Your task to perform on an android device: empty trash in google photos Image 0: 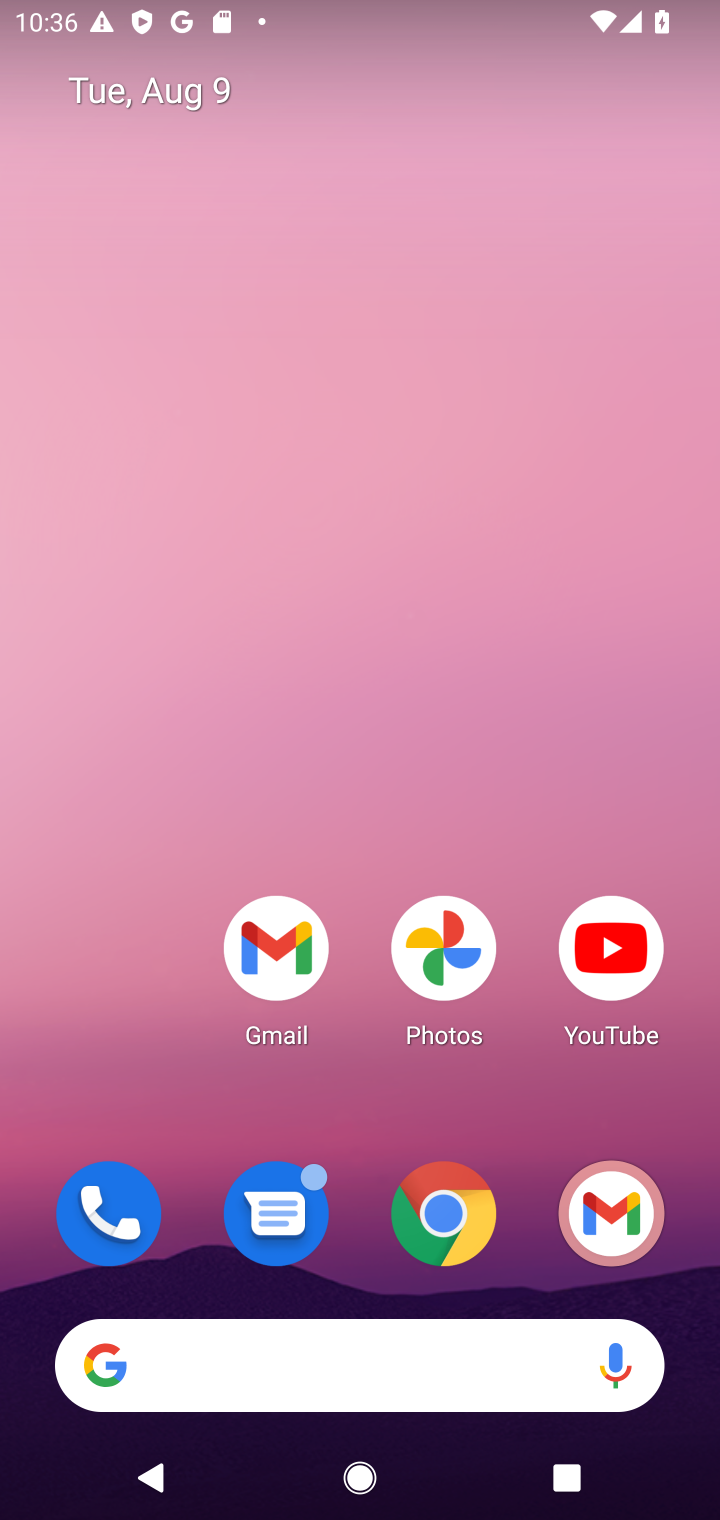
Step 0: drag from (422, 1264) to (502, 95)
Your task to perform on an android device: empty trash in google photos Image 1: 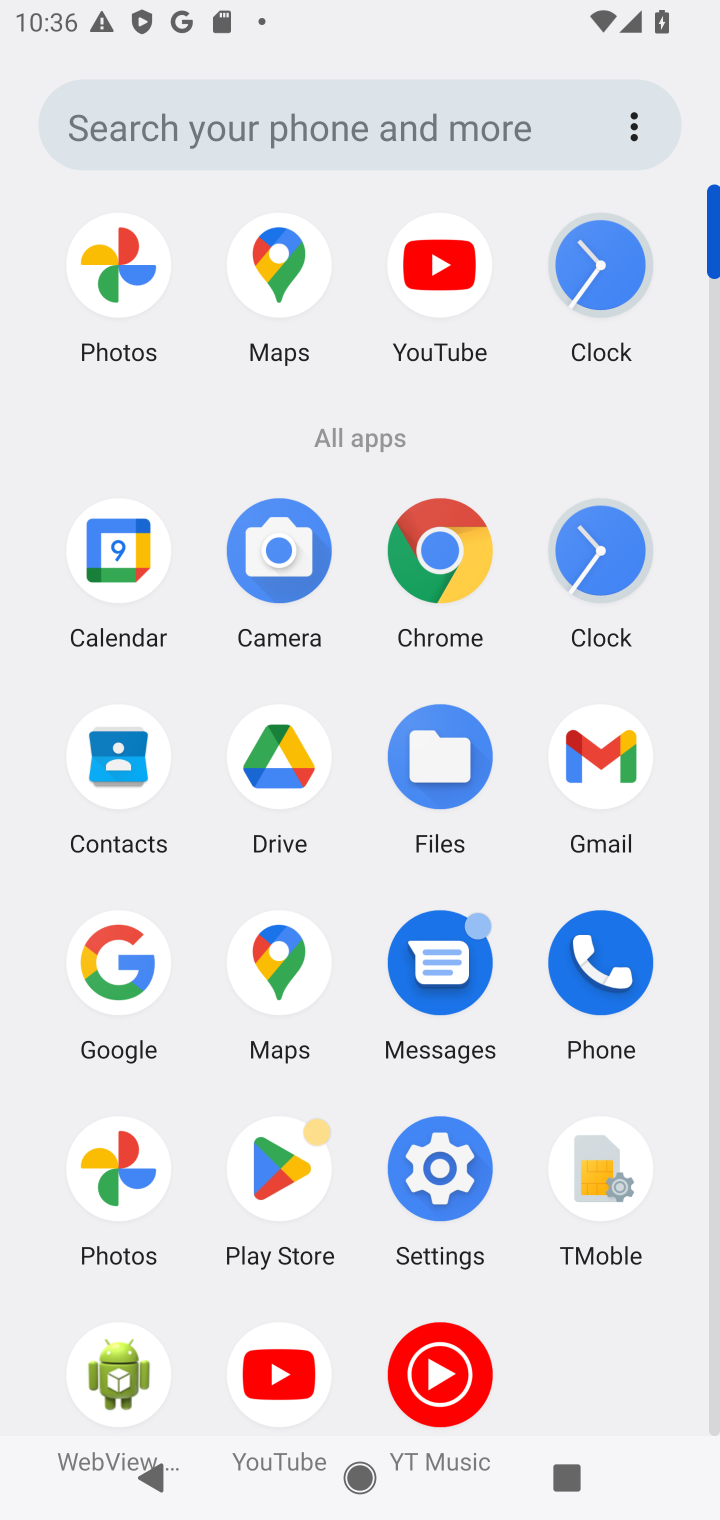
Step 1: click (138, 1190)
Your task to perform on an android device: empty trash in google photos Image 2: 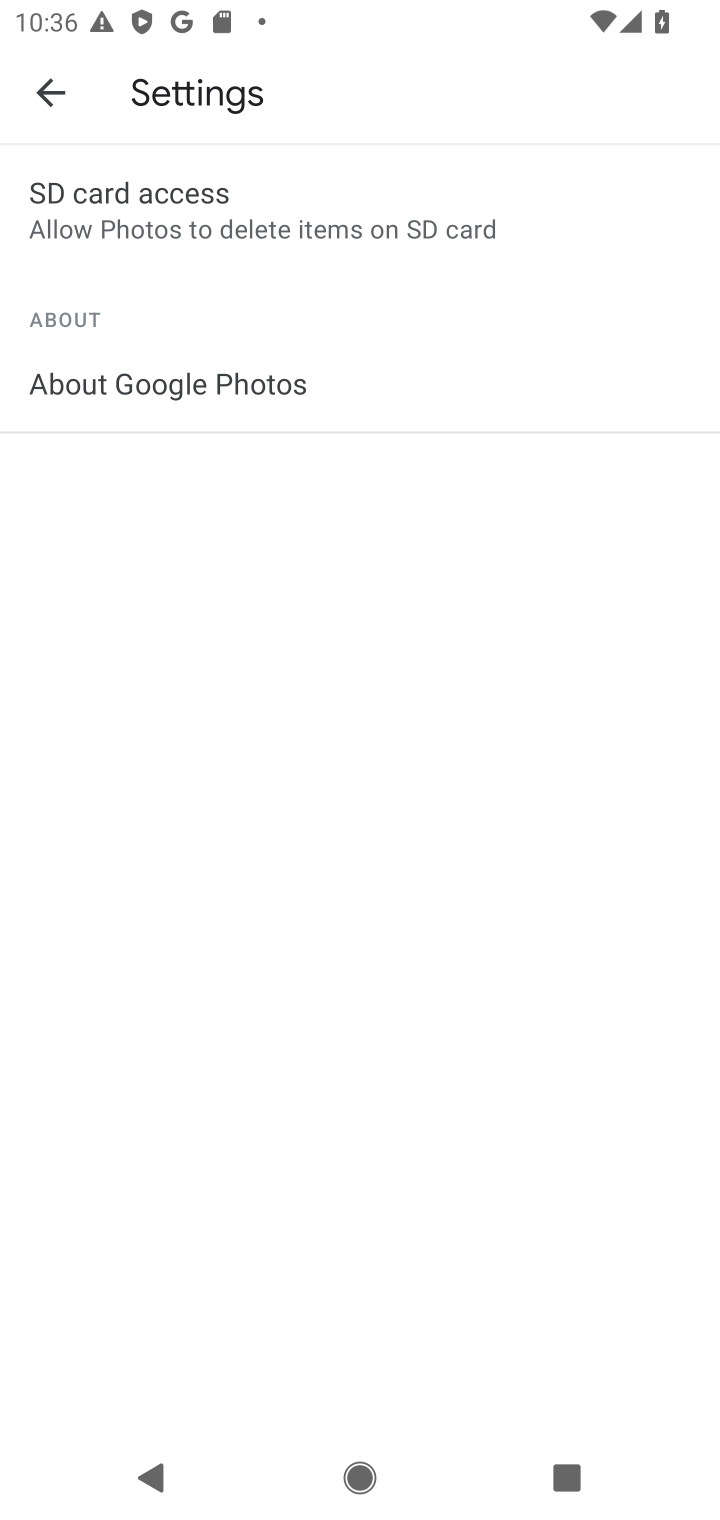
Step 2: click (41, 96)
Your task to perform on an android device: empty trash in google photos Image 3: 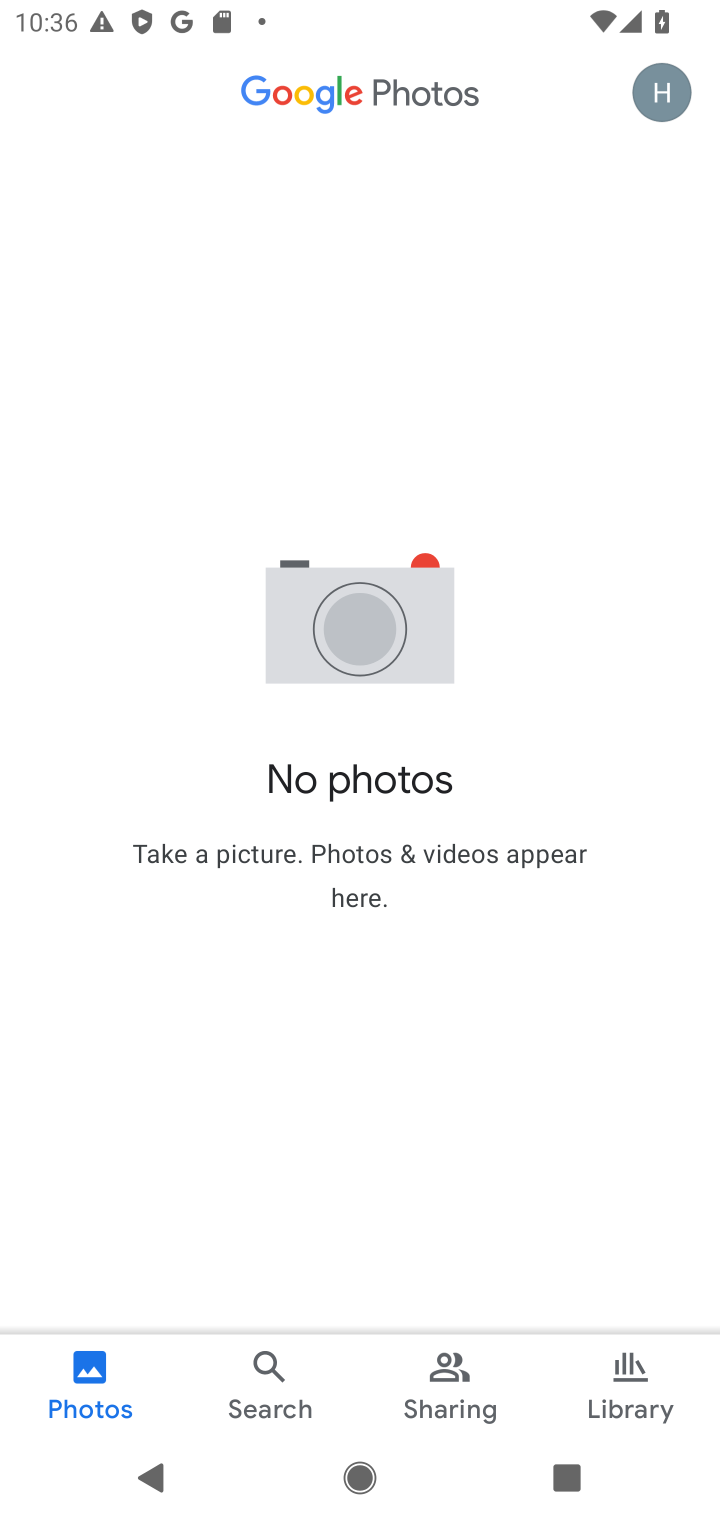
Step 3: click (646, 1359)
Your task to perform on an android device: empty trash in google photos Image 4: 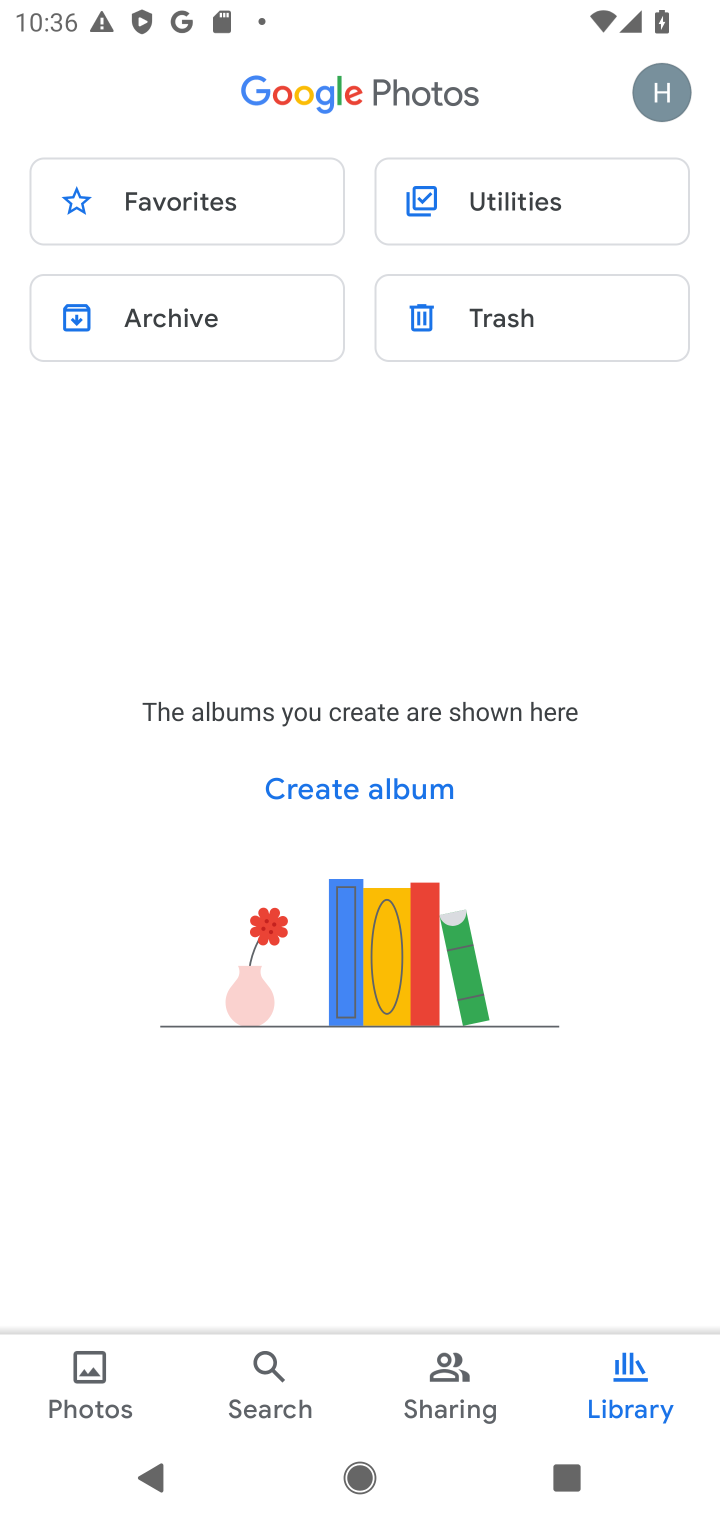
Step 4: click (516, 297)
Your task to perform on an android device: empty trash in google photos Image 5: 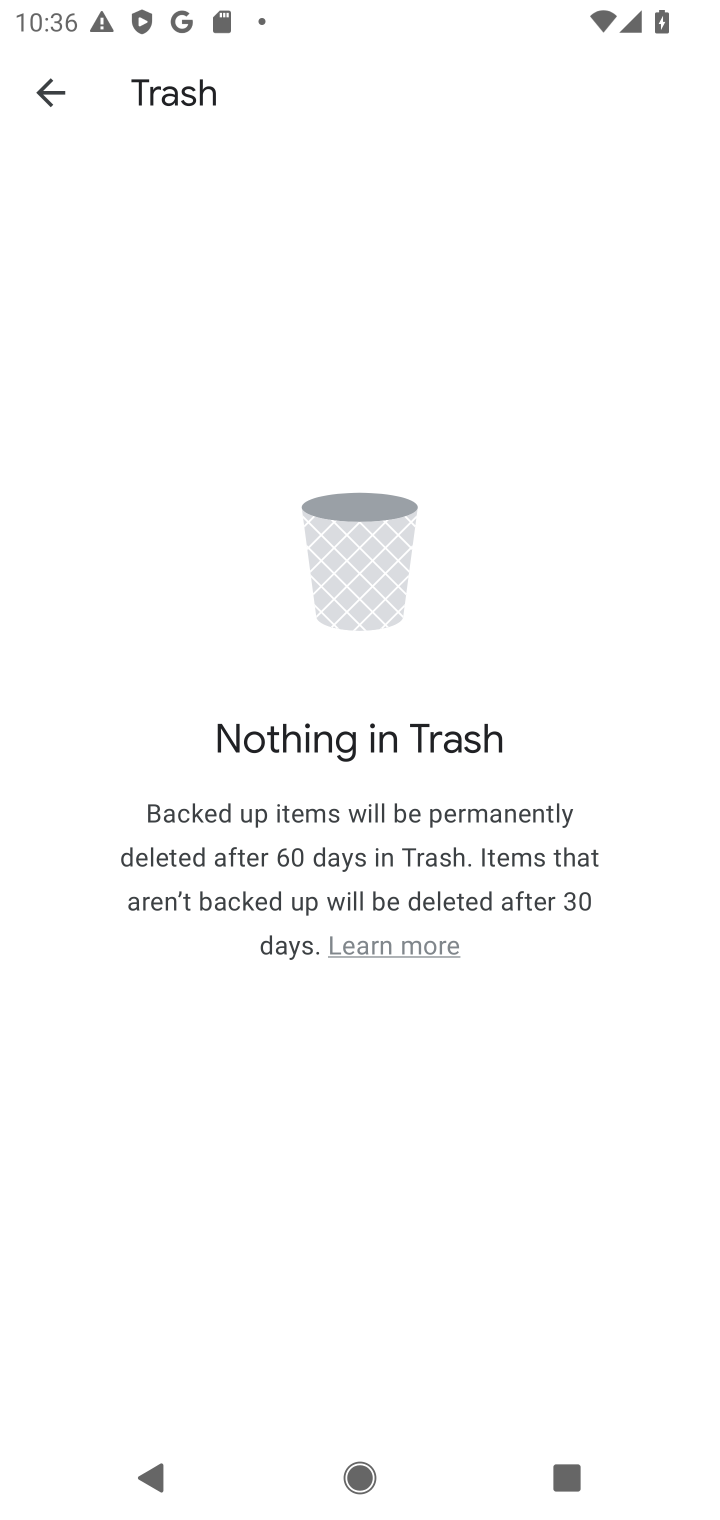
Step 5: task complete